Your task to perform on an android device: toggle notification dots Image 0: 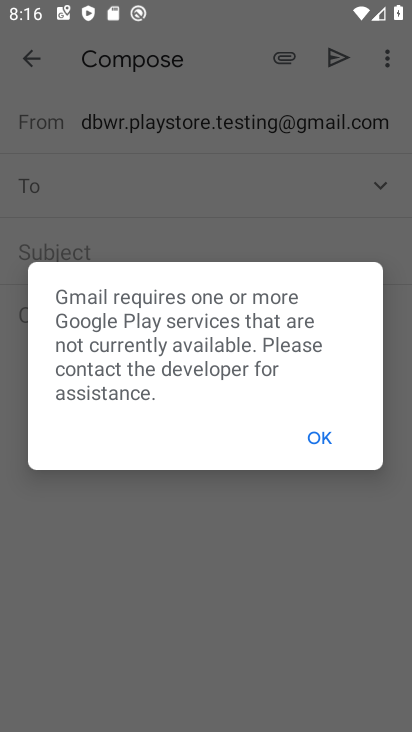
Step 0: press home button
Your task to perform on an android device: toggle notification dots Image 1: 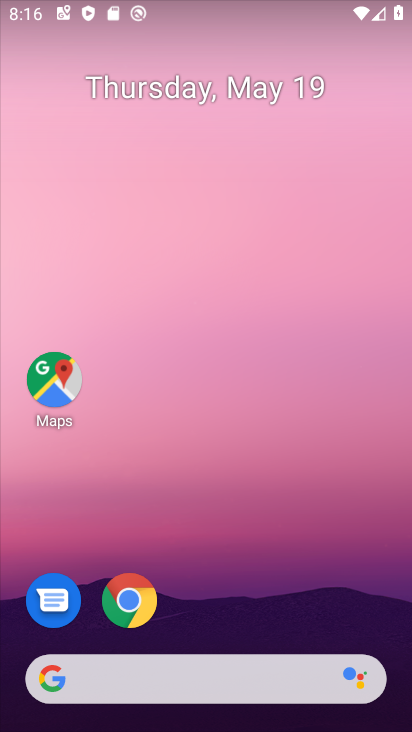
Step 1: drag from (241, 634) to (235, 7)
Your task to perform on an android device: toggle notification dots Image 2: 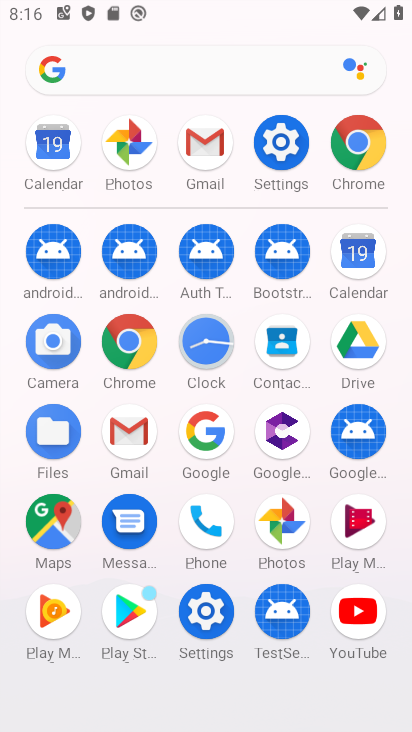
Step 2: click (286, 139)
Your task to perform on an android device: toggle notification dots Image 3: 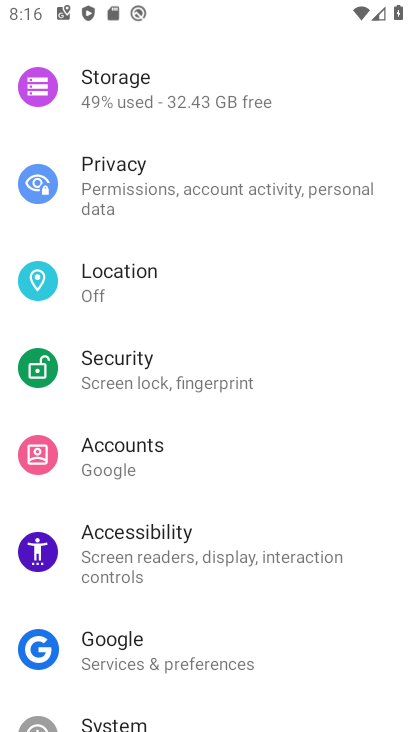
Step 3: drag from (311, 298) to (269, 635)
Your task to perform on an android device: toggle notification dots Image 4: 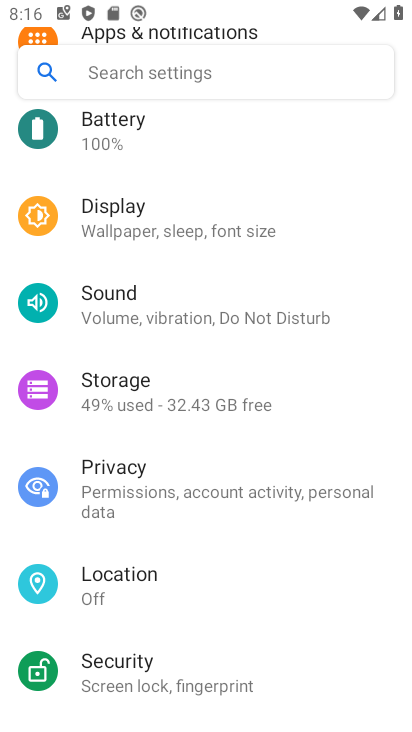
Step 4: drag from (241, 205) to (230, 538)
Your task to perform on an android device: toggle notification dots Image 5: 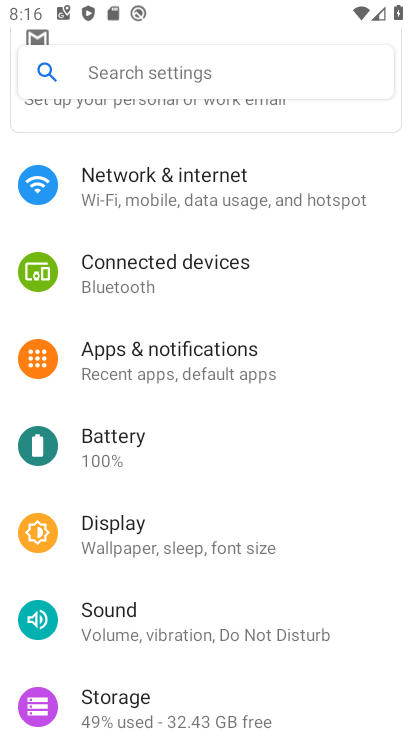
Step 5: click (143, 372)
Your task to perform on an android device: toggle notification dots Image 6: 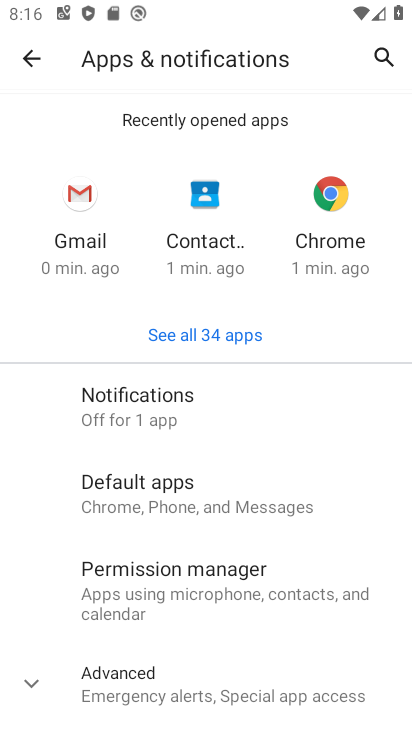
Step 6: click (145, 431)
Your task to perform on an android device: toggle notification dots Image 7: 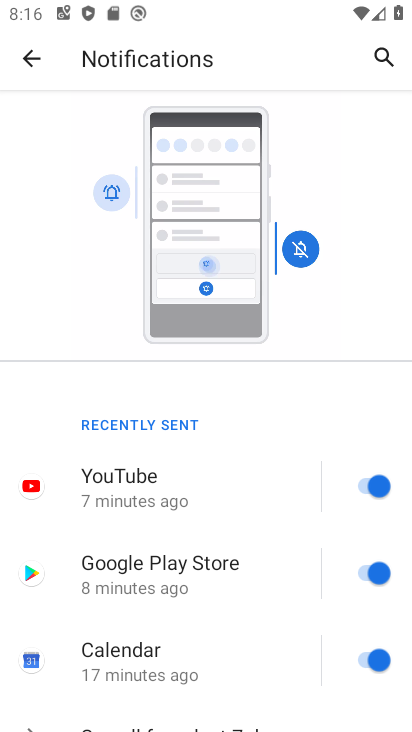
Step 7: drag from (182, 584) to (131, 254)
Your task to perform on an android device: toggle notification dots Image 8: 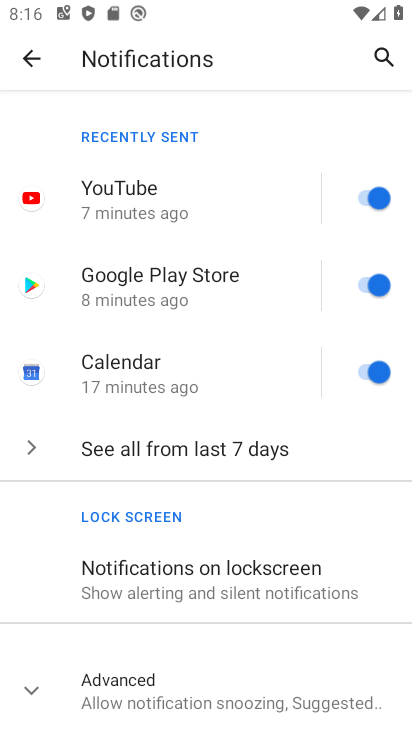
Step 8: drag from (114, 597) to (104, 406)
Your task to perform on an android device: toggle notification dots Image 9: 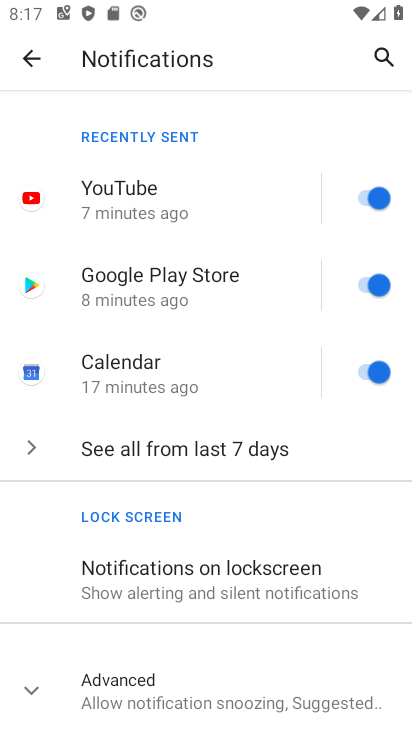
Step 9: click (25, 701)
Your task to perform on an android device: toggle notification dots Image 10: 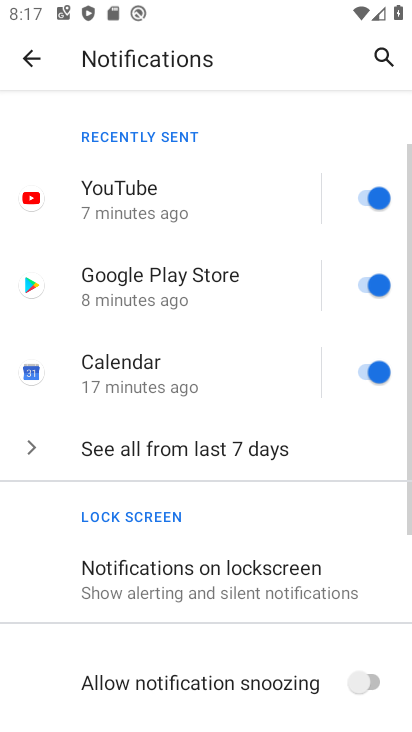
Step 10: drag from (135, 683) to (102, 227)
Your task to perform on an android device: toggle notification dots Image 11: 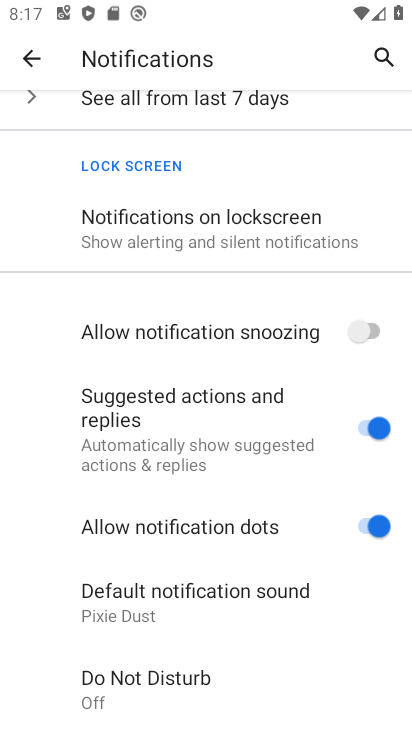
Step 11: click (378, 530)
Your task to perform on an android device: toggle notification dots Image 12: 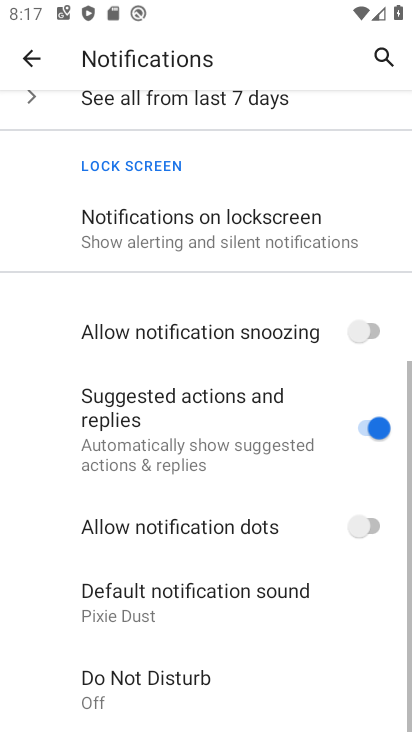
Step 12: task complete